Your task to perform on an android device: Open accessibility settings Image 0: 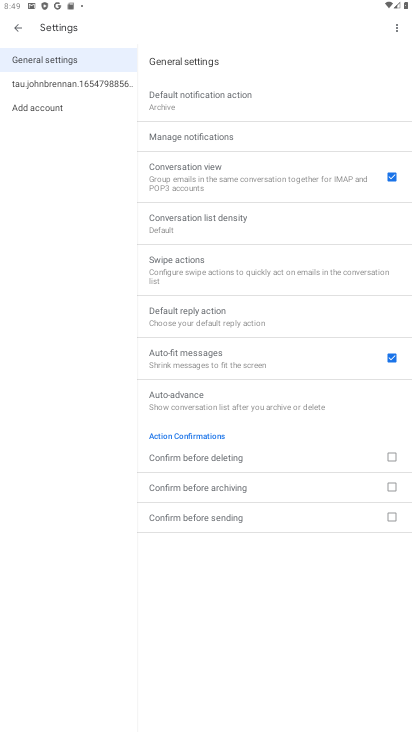
Step 0: press home button
Your task to perform on an android device: Open accessibility settings Image 1: 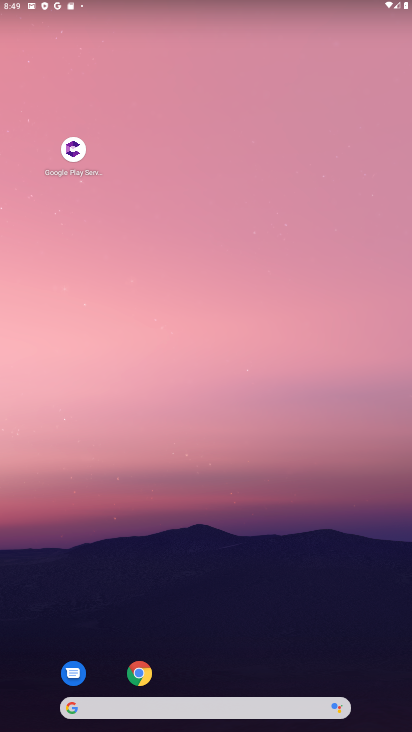
Step 1: drag from (386, 667) to (356, 199)
Your task to perform on an android device: Open accessibility settings Image 2: 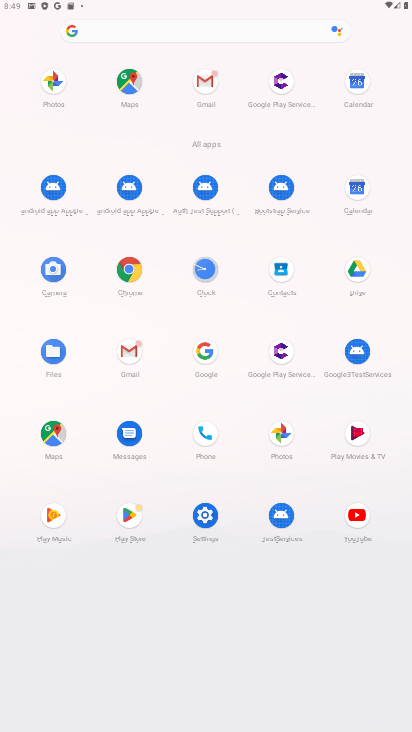
Step 2: click (208, 514)
Your task to perform on an android device: Open accessibility settings Image 3: 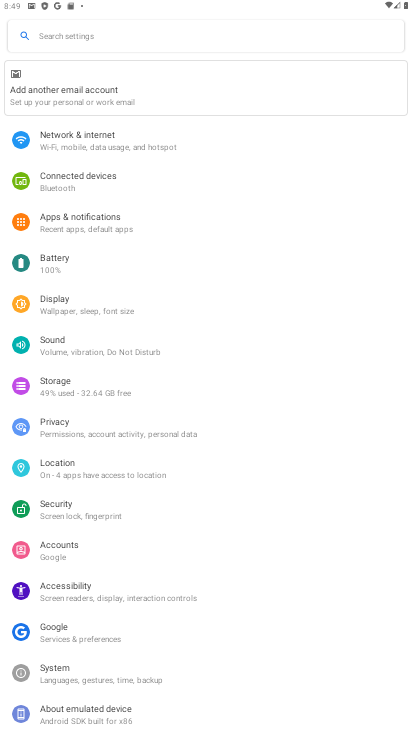
Step 3: click (66, 584)
Your task to perform on an android device: Open accessibility settings Image 4: 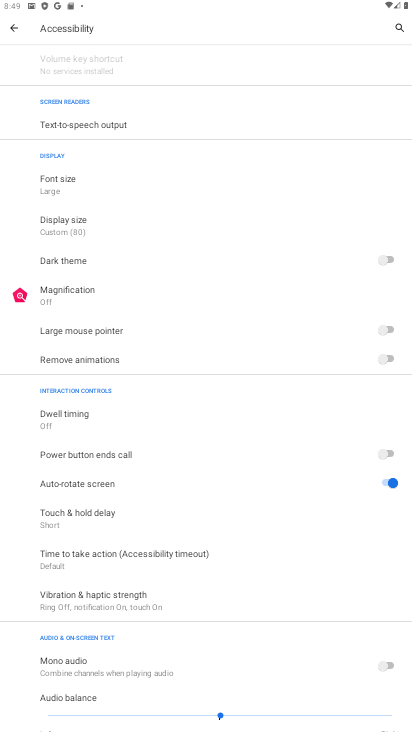
Step 4: task complete